Your task to perform on an android device: Open Chrome and go to the settings page Image 0: 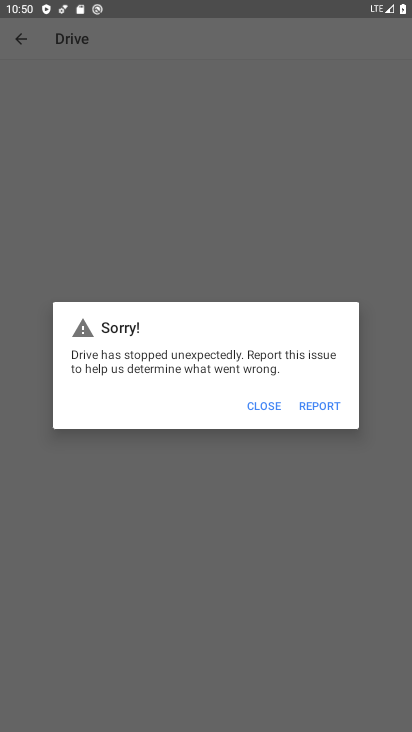
Step 0: press home button
Your task to perform on an android device: Open Chrome and go to the settings page Image 1: 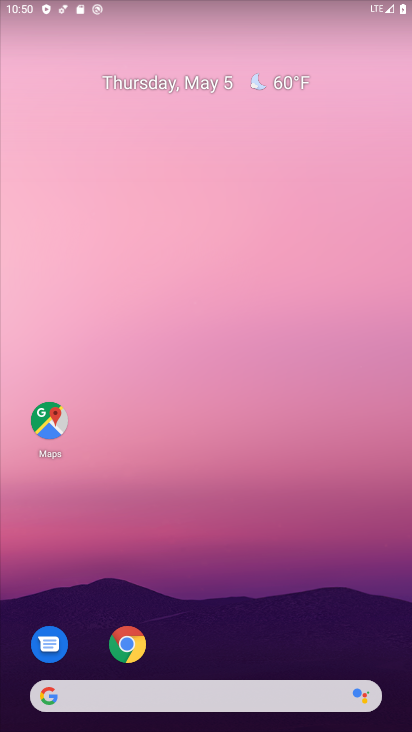
Step 1: drag from (309, 609) to (288, 155)
Your task to perform on an android device: Open Chrome and go to the settings page Image 2: 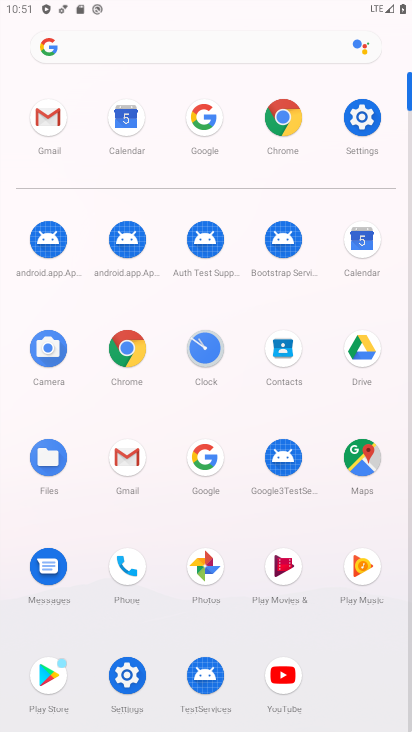
Step 2: click (124, 350)
Your task to perform on an android device: Open Chrome and go to the settings page Image 3: 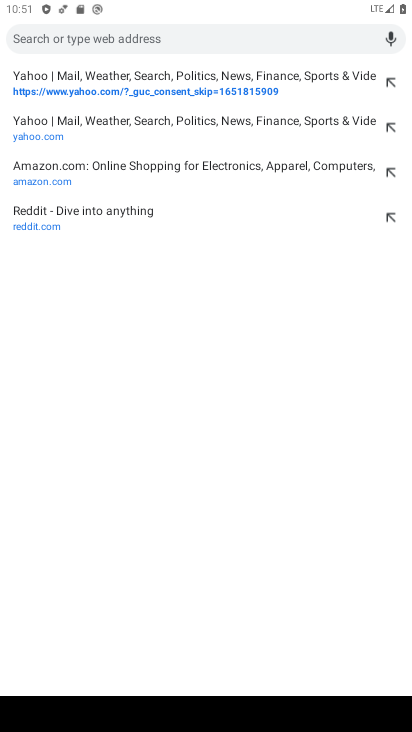
Step 3: task complete